Your task to perform on an android device: Go to wifi settings Image 0: 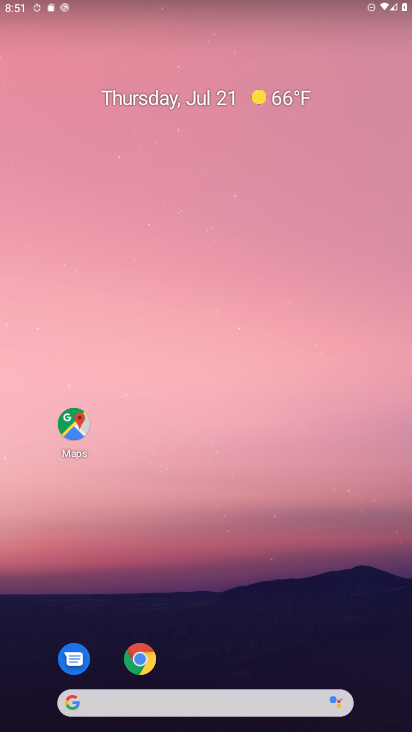
Step 0: drag from (189, 661) to (201, 165)
Your task to perform on an android device: Go to wifi settings Image 1: 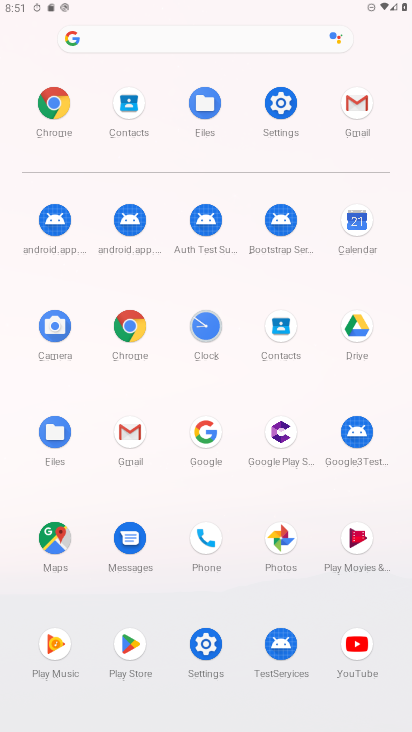
Step 1: click (202, 635)
Your task to perform on an android device: Go to wifi settings Image 2: 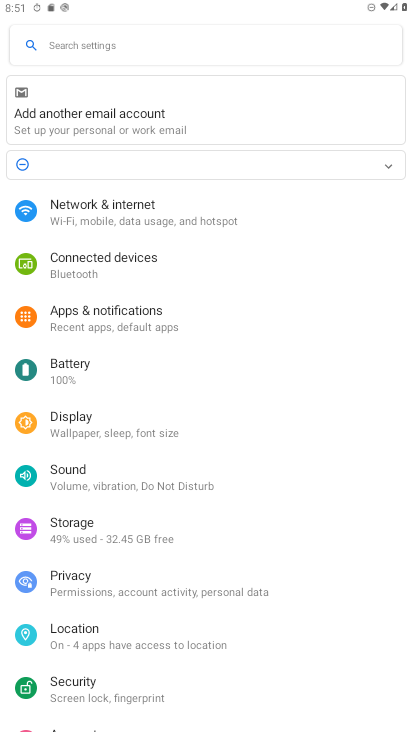
Step 2: click (111, 216)
Your task to perform on an android device: Go to wifi settings Image 3: 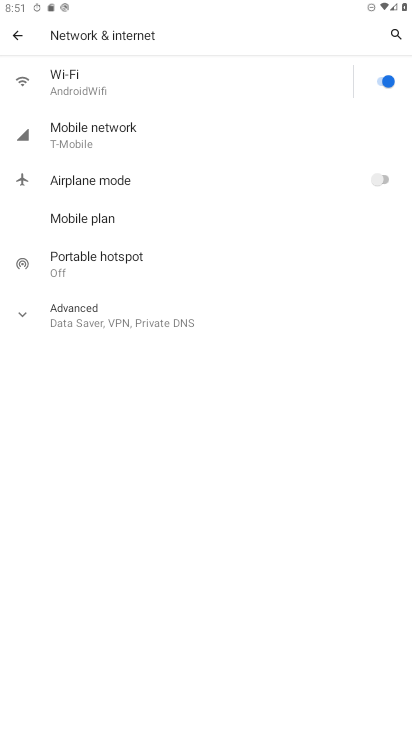
Step 3: click (180, 97)
Your task to perform on an android device: Go to wifi settings Image 4: 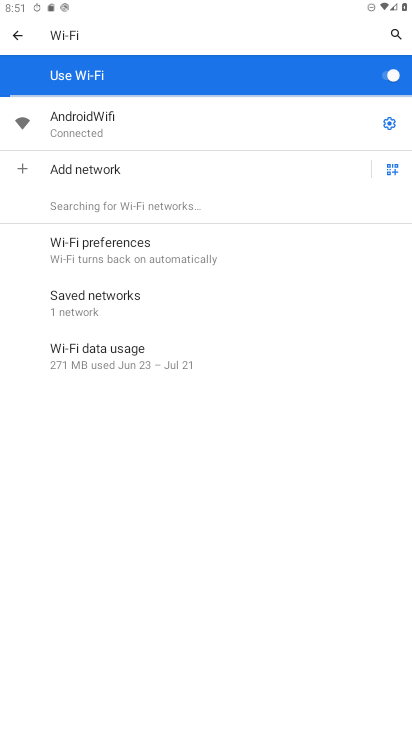
Step 4: click (386, 122)
Your task to perform on an android device: Go to wifi settings Image 5: 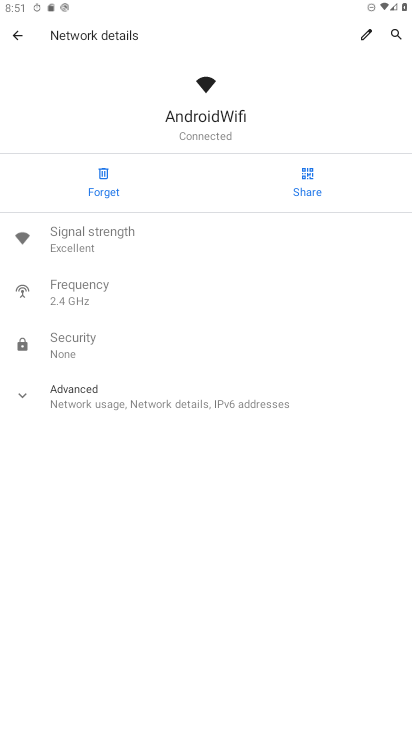
Step 5: task complete